Your task to perform on an android device: add a contact in the contacts app Image 0: 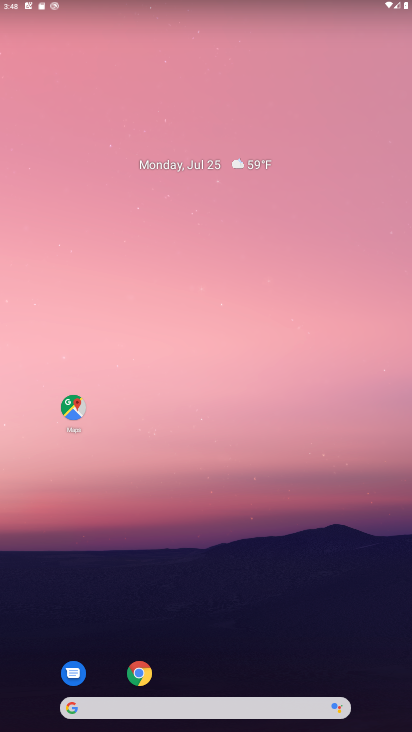
Step 0: drag from (346, 611) to (282, 219)
Your task to perform on an android device: add a contact in the contacts app Image 1: 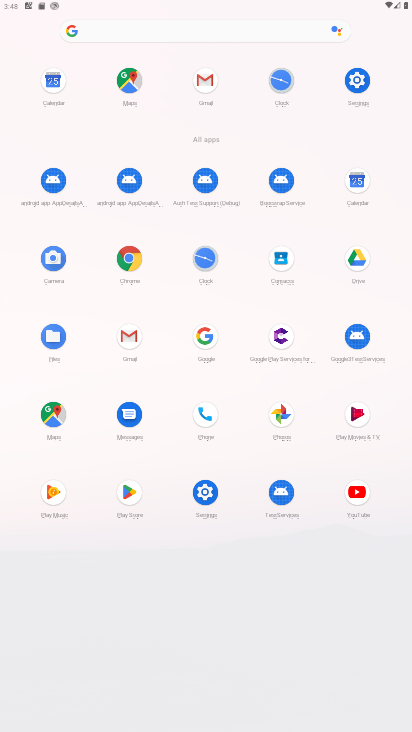
Step 1: click (280, 256)
Your task to perform on an android device: add a contact in the contacts app Image 2: 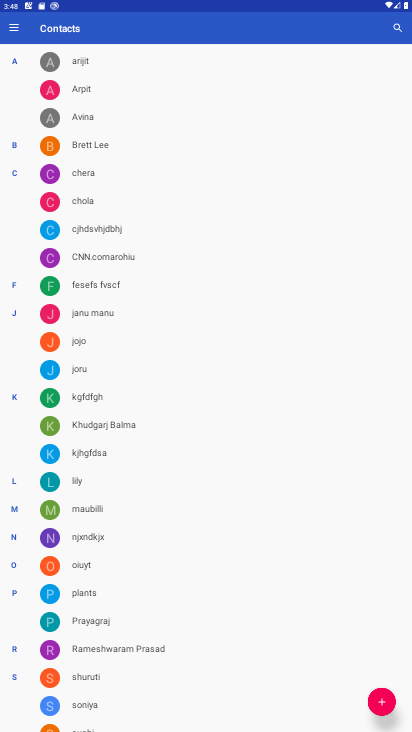
Step 2: click (383, 708)
Your task to perform on an android device: add a contact in the contacts app Image 3: 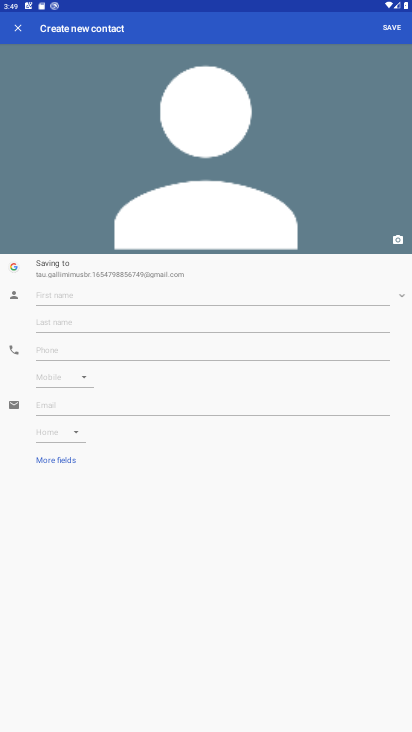
Step 3: click (81, 288)
Your task to perform on an android device: add a contact in the contacts app Image 4: 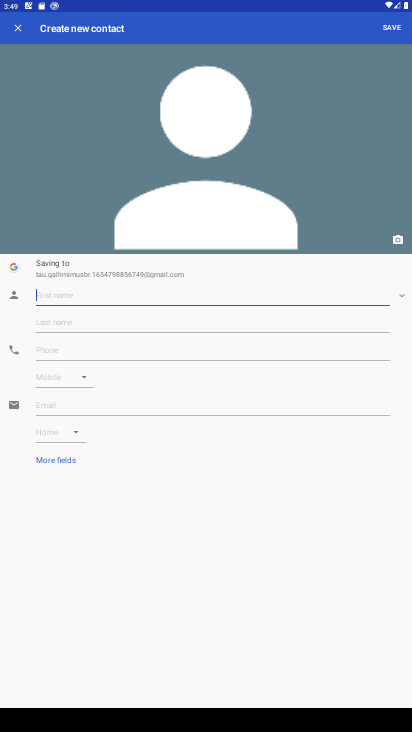
Step 4: type "ggg"
Your task to perform on an android device: add a contact in the contacts app Image 5: 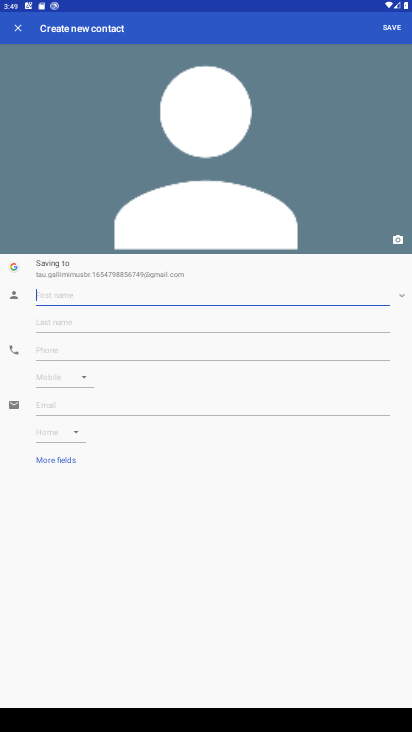
Step 5: click (61, 352)
Your task to perform on an android device: add a contact in the contacts app Image 6: 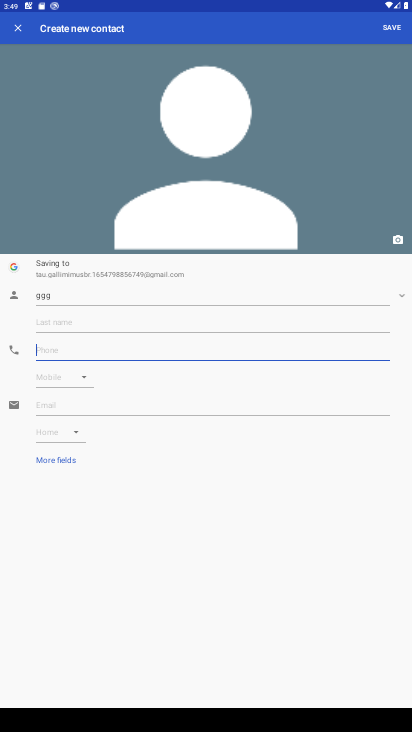
Step 6: type "9900990090"
Your task to perform on an android device: add a contact in the contacts app Image 7: 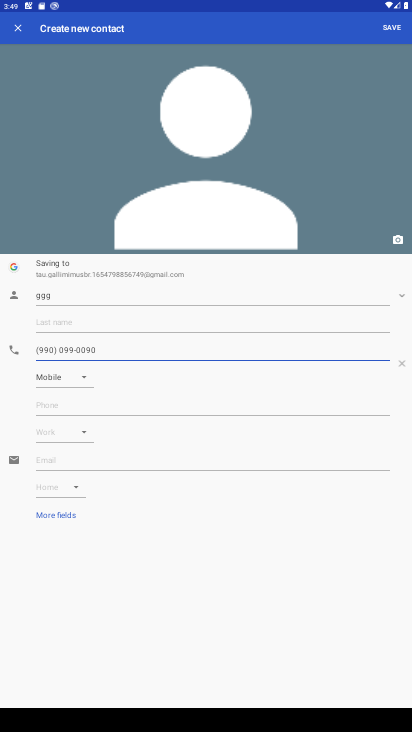
Step 7: click (397, 25)
Your task to perform on an android device: add a contact in the contacts app Image 8: 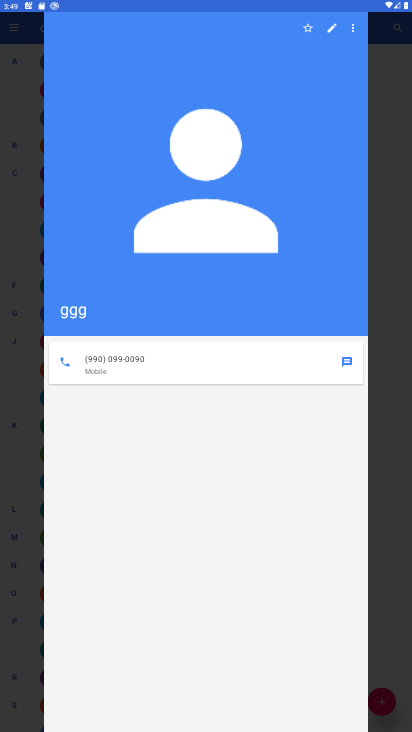
Step 8: task complete